Your task to perform on an android device: Do I have any events today? Image 0: 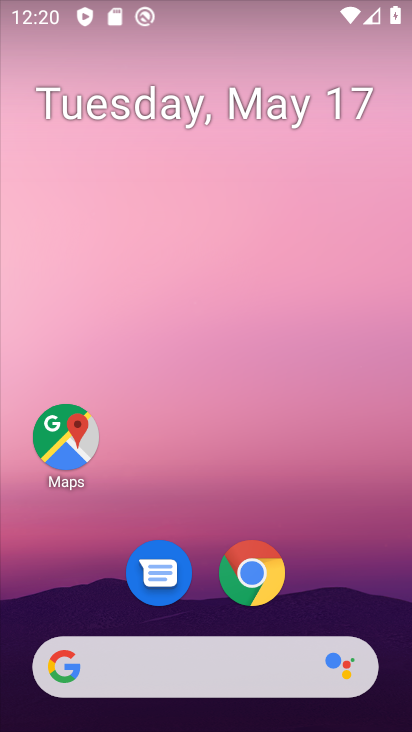
Step 0: press home button
Your task to perform on an android device: Do I have any events today? Image 1: 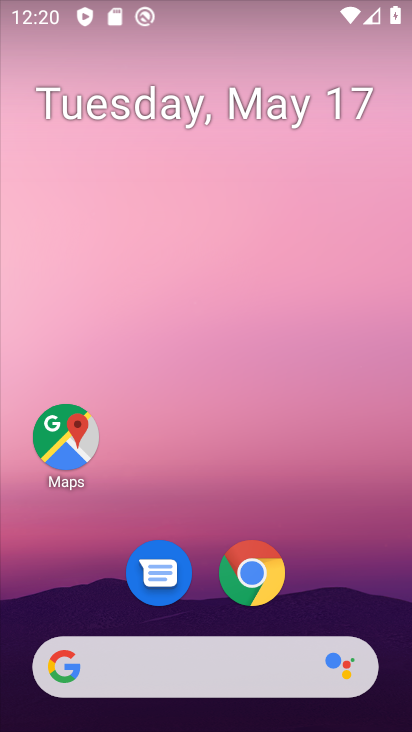
Step 1: task complete